Your task to perform on an android device: toggle airplane mode Image 0: 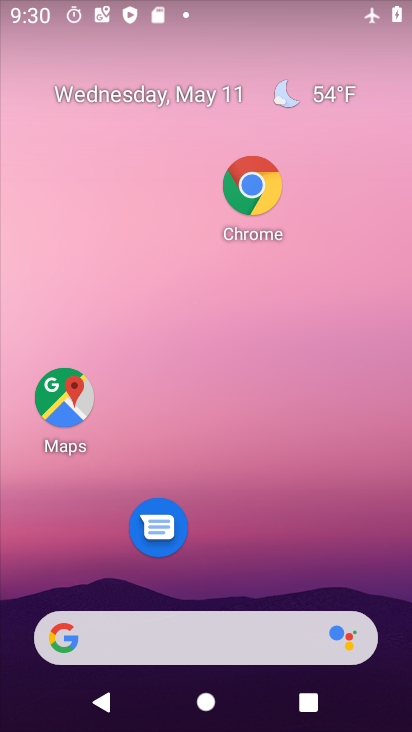
Step 0: drag from (236, 555) to (227, 64)
Your task to perform on an android device: toggle airplane mode Image 1: 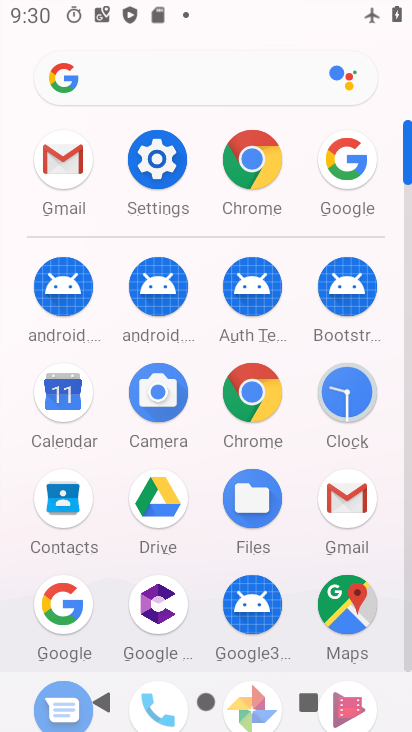
Step 1: click (156, 166)
Your task to perform on an android device: toggle airplane mode Image 2: 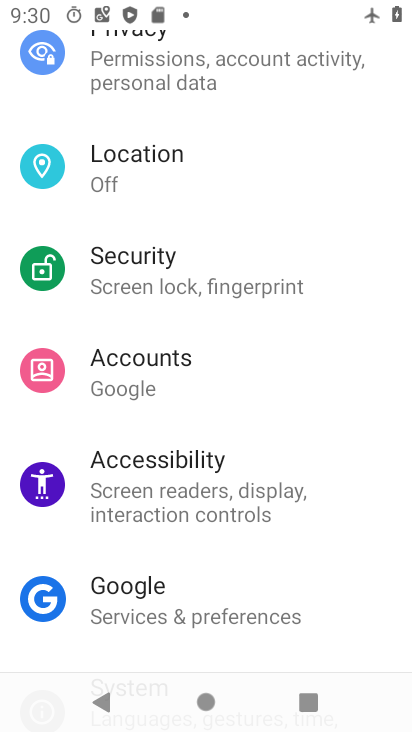
Step 2: drag from (190, 127) to (240, 698)
Your task to perform on an android device: toggle airplane mode Image 3: 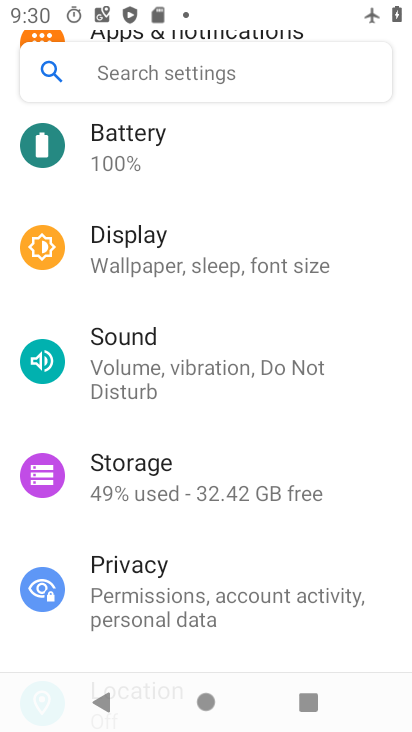
Step 3: drag from (160, 215) to (225, 607)
Your task to perform on an android device: toggle airplane mode Image 4: 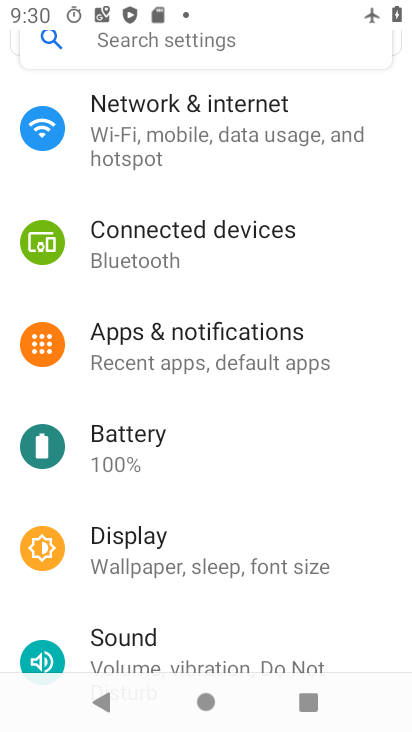
Step 4: click (159, 179)
Your task to perform on an android device: toggle airplane mode Image 5: 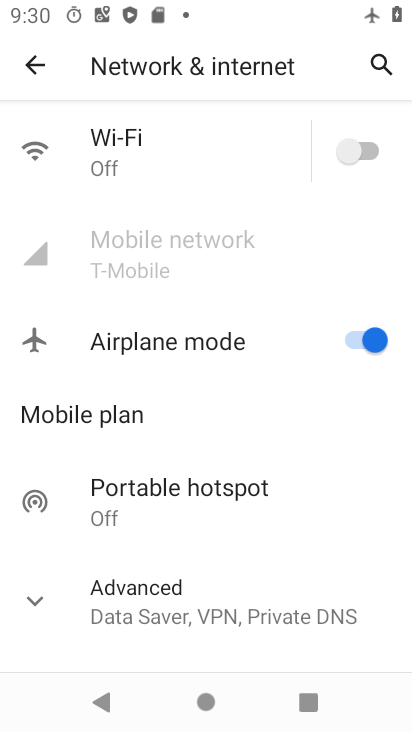
Step 5: click (373, 330)
Your task to perform on an android device: toggle airplane mode Image 6: 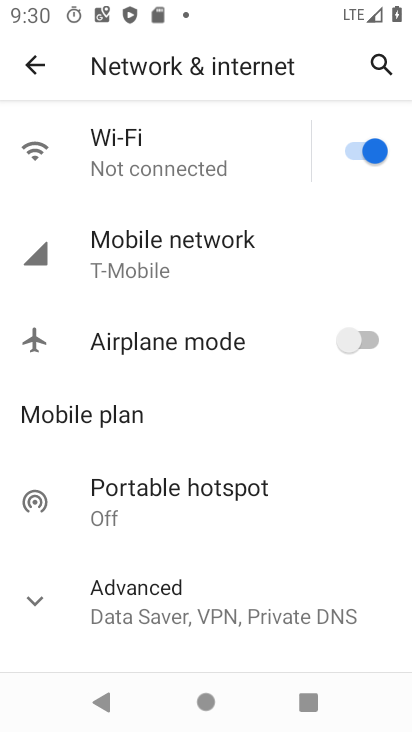
Step 6: task complete